Your task to perform on an android device: View the shopping cart on amazon. Add razer kraken to the cart on amazon, then select checkout. Image 0: 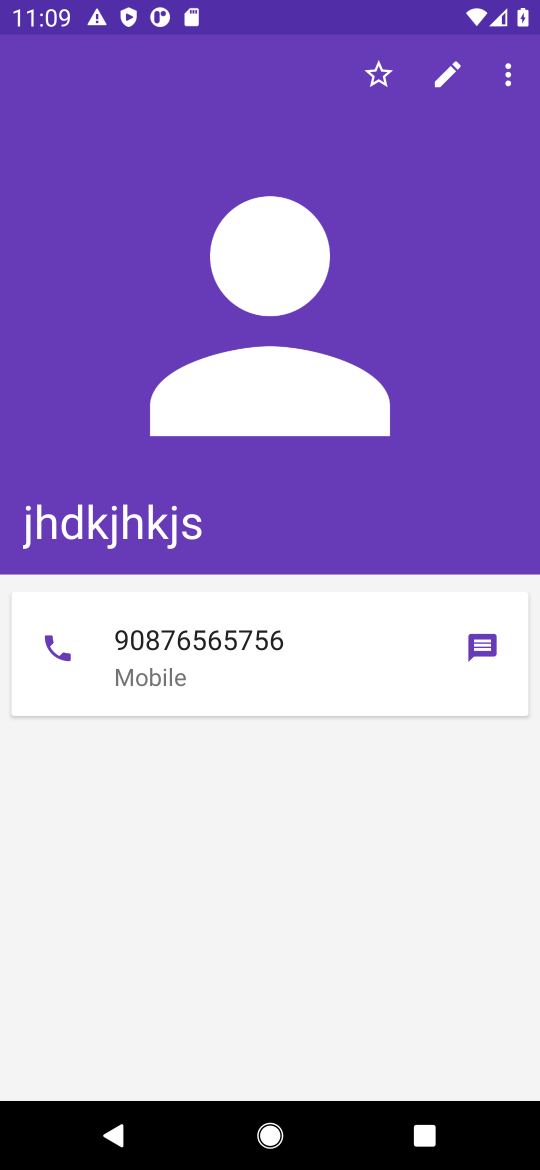
Step 0: press home button
Your task to perform on an android device: View the shopping cart on amazon. Add razer kraken to the cart on amazon, then select checkout. Image 1: 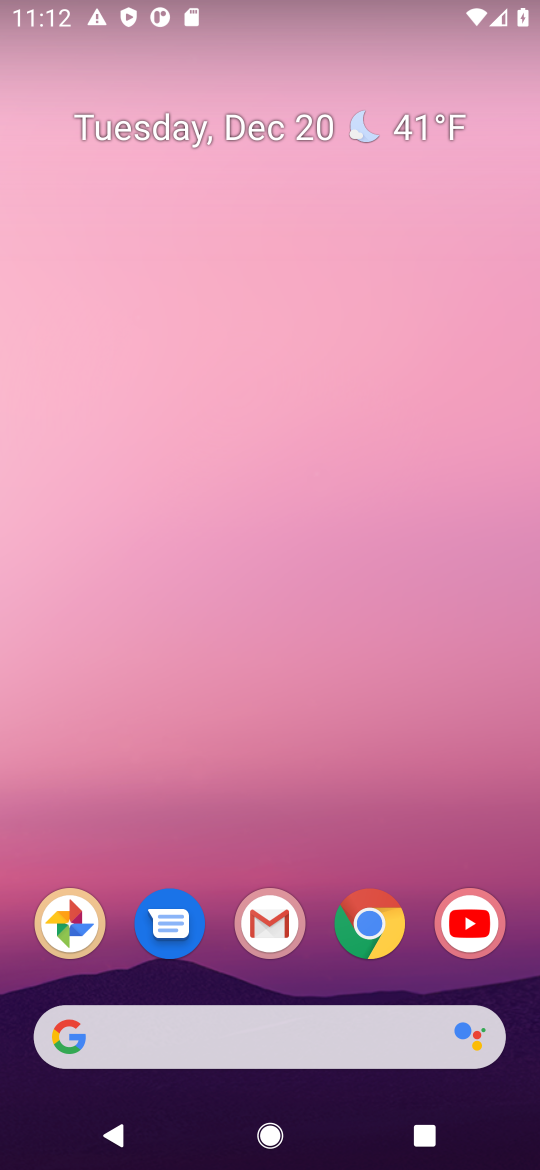
Step 1: click (373, 939)
Your task to perform on an android device: View the shopping cart on amazon. Add razer kraken to the cart on amazon, then select checkout. Image 2: 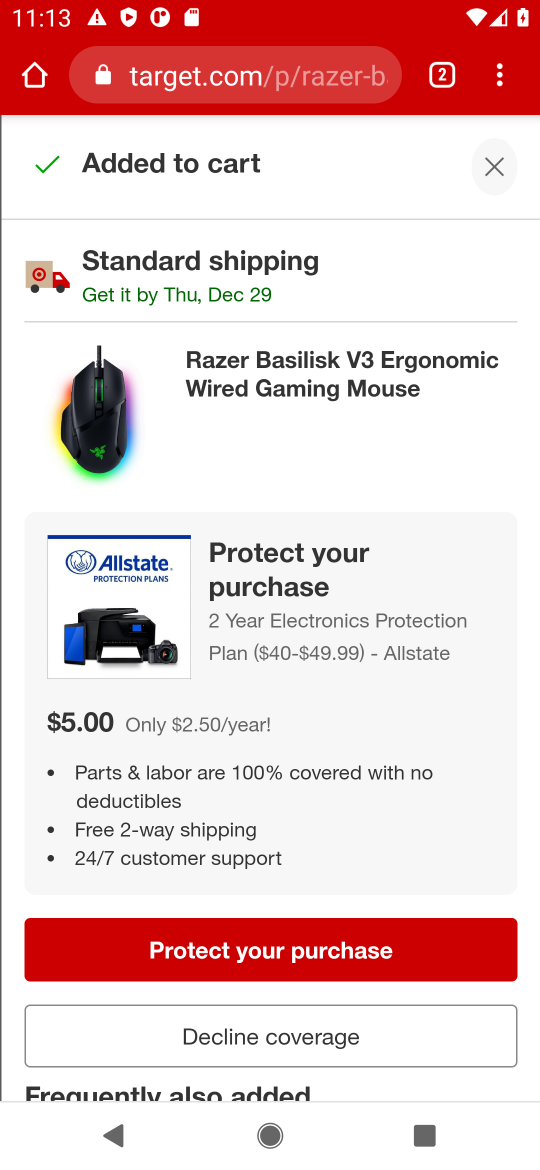
Step 2: click (295, 921)
Your task to perform on an android device: View the shopping cart on amazon. Add razer kraken to the cart on amazon, then select checkout. Image 3: 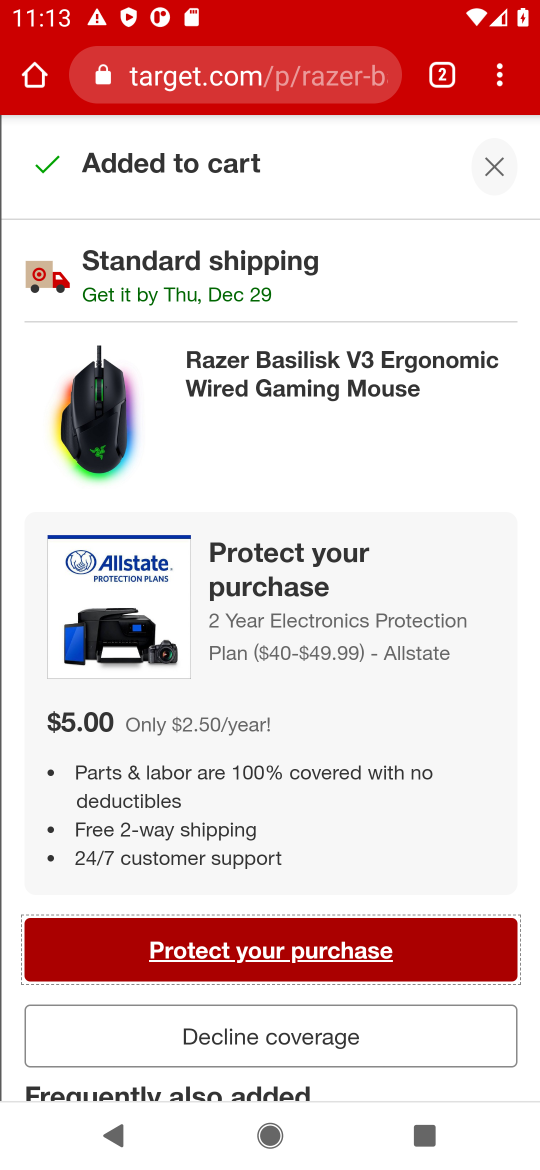
Step 3: task complete